Your task to perform on an android device: add a contact in the contacts app Image 0: 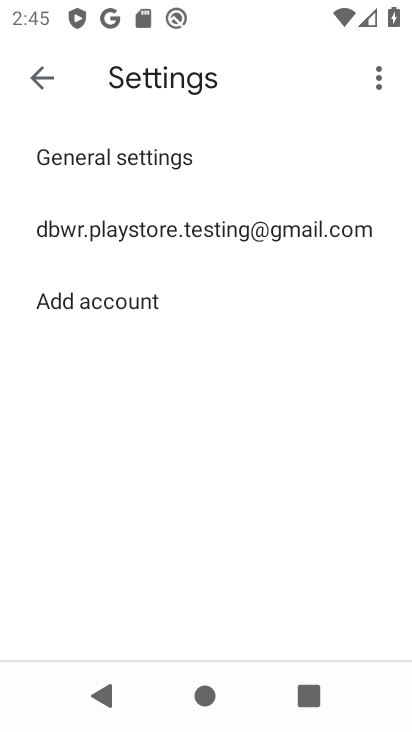
Step 0: press home button
Your task to perform on an android device: add a contact in the contacts app Image 1: 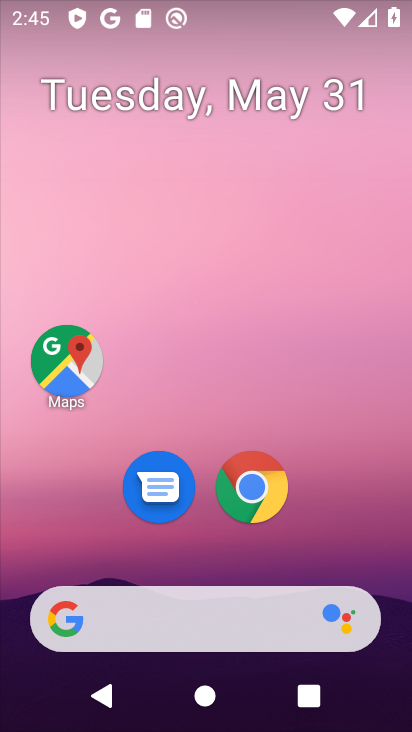
Step 1: drag from (80, 579) to (242, 51)
Your task to perform on an android device: add a contact in the contacts app Image 2: 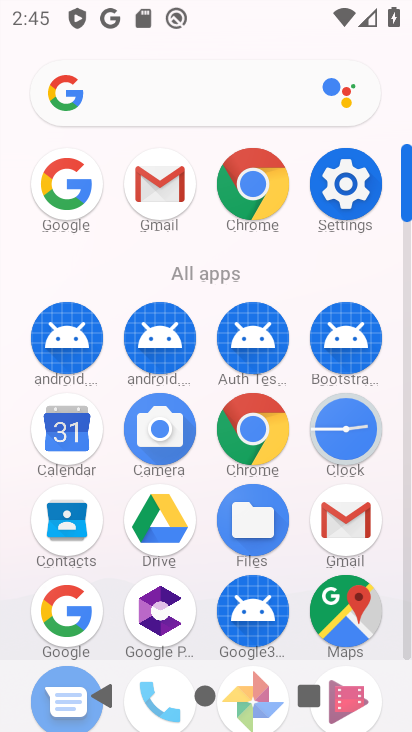
Step 2: drag from (131, 597) to (196, 410)
Your task to perform on an android device: add a contact in the contacts app Image 3: 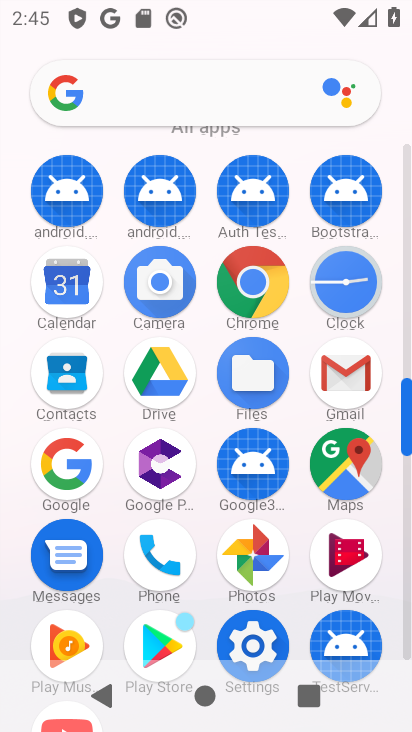
Step 3: click (76, 394)
Your task to perform on an android device: add a contact in the contacts app Image 4: 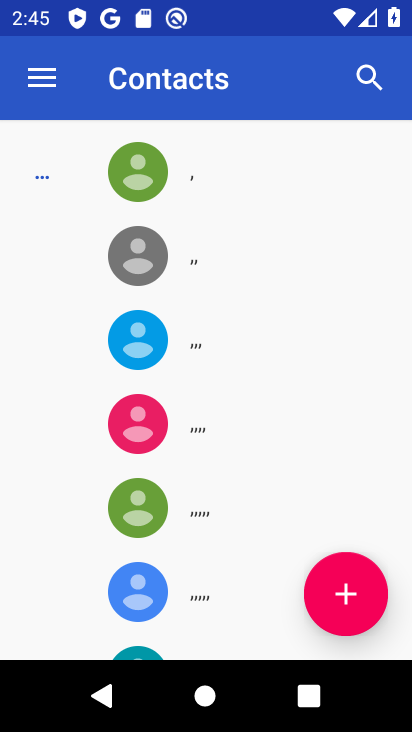
Step 4: click (334, 595)
Your task to perform on an android device: add a contact in the contacts app Image 5: 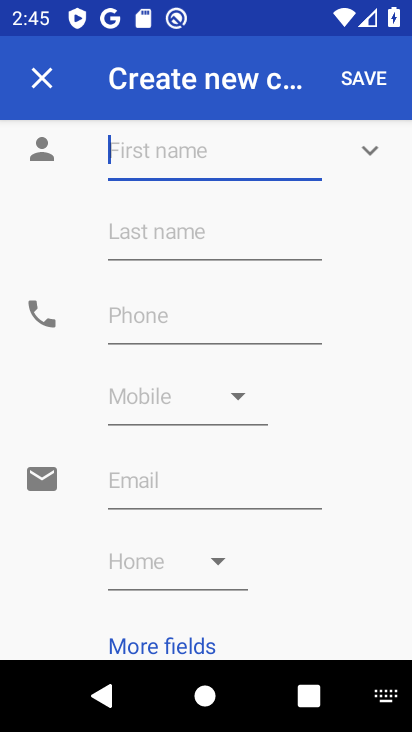
Step 5: type "kkkkk"
Your task to perform on an android device: add a contact in the contacts app Image 6: 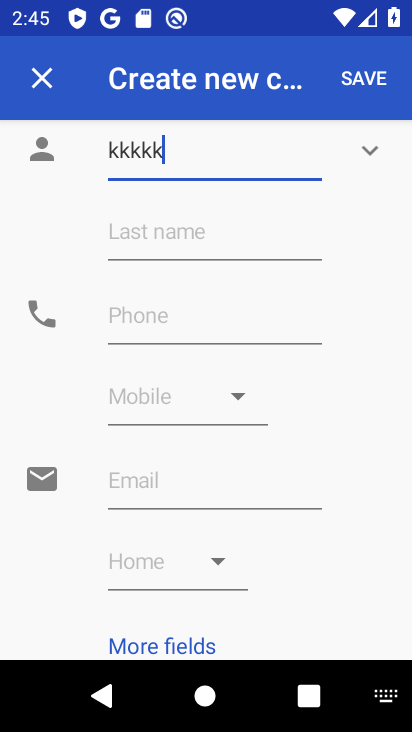
Step 6: click (137, 327)
Your task to perform on an android device: add a contact in the contacts app Image 7: 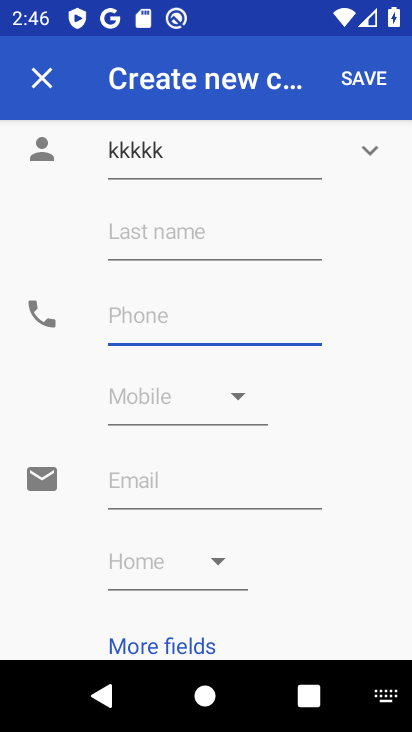
Step 7: type "989988996"
Your task to perform on an android device: add a contact in the contacts app Image 8: 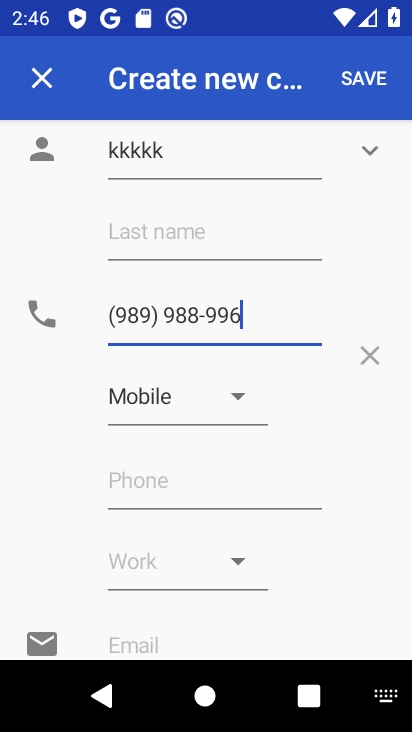
Step 8: type "7"
Your task to perform on an android device: add a contact in the contacts app Image 9: 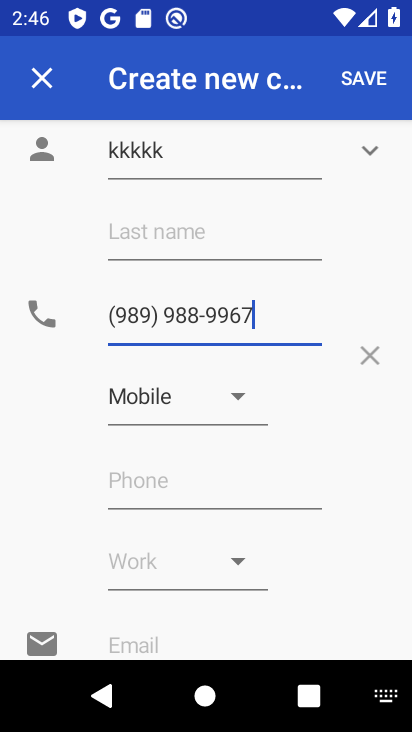
Step 9: click (390, 65)
Your task to perform on an android device: add a contact in the contacts app Image 10: 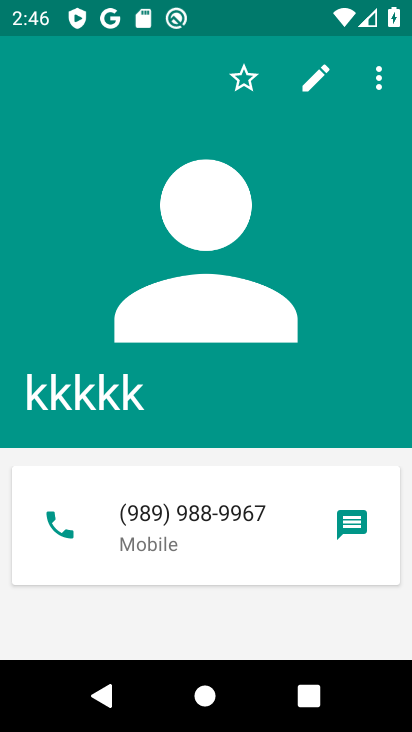
Step 10: task complete